Your task to perform on an android device: open a new tab in the chrome app Image 0: 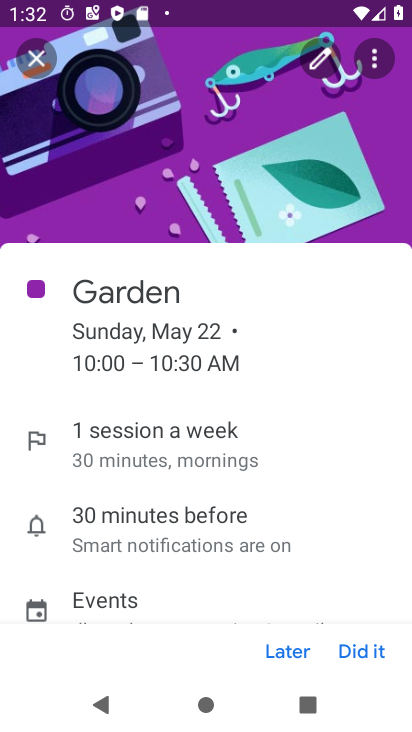
Step 0: press home button
Your task to perform on an android device: open a new tab in the chrome app Image 1: 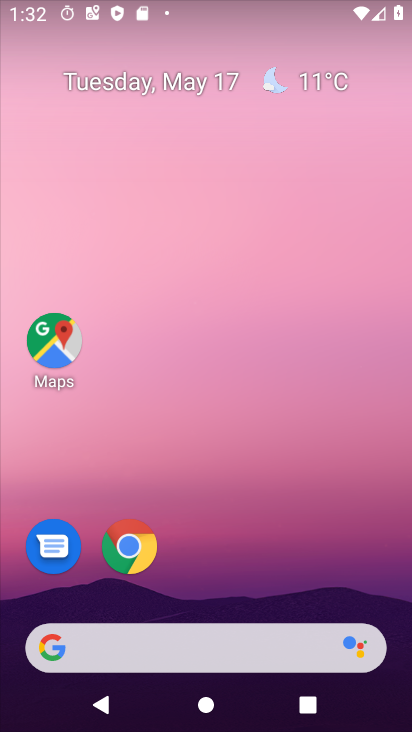
Step 1: click (122, 547)
Your task to perform on an android device: open a new tab in the chrome app Image 2: 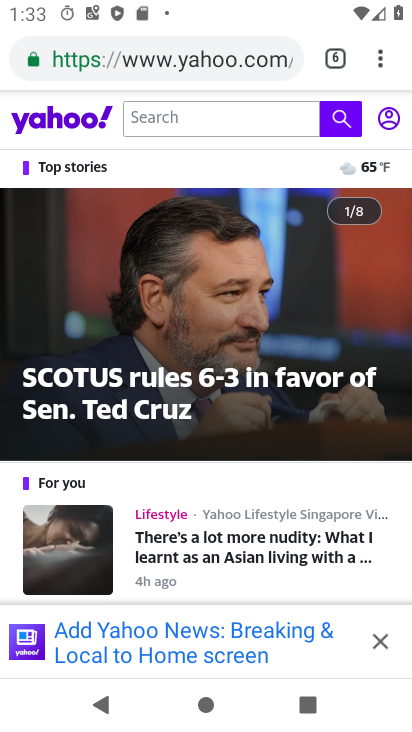
Step 2: task complete